Your task to perform on an android device: Go to accessibility settings Image 0: 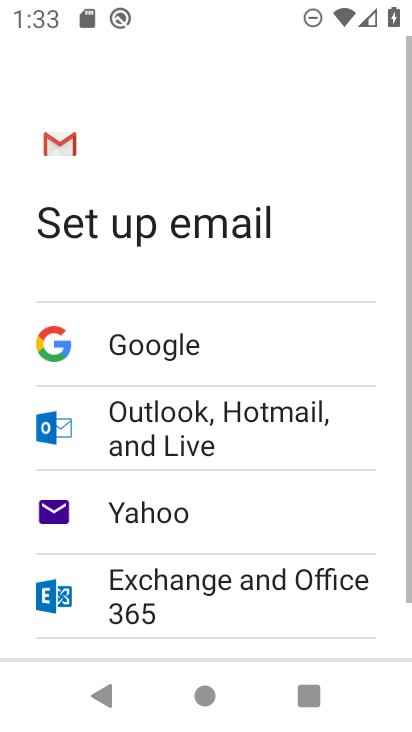
Step 0: press home button
Your task to perform on an android device: Go to accessibility settings Image 1: 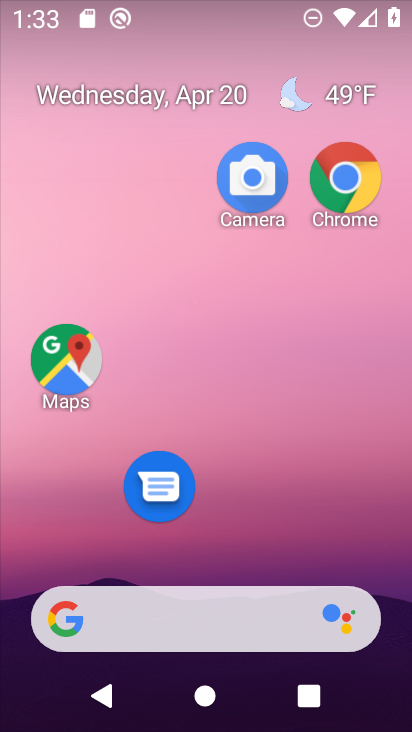
Step 1: drag from (293, 635) to (363, 21)
Your task to perform on an android device: Go to accessibility settings Image 2: 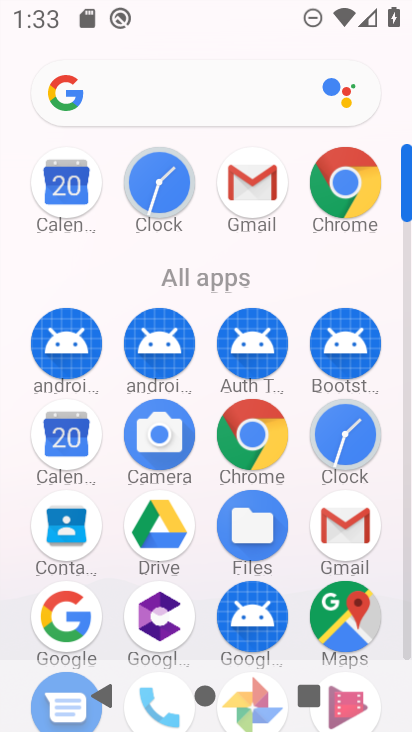
Step 2: drag from (103, 584) to (170, 215)
Your task to perform on an android device: Go to accessibility settings Image 3: 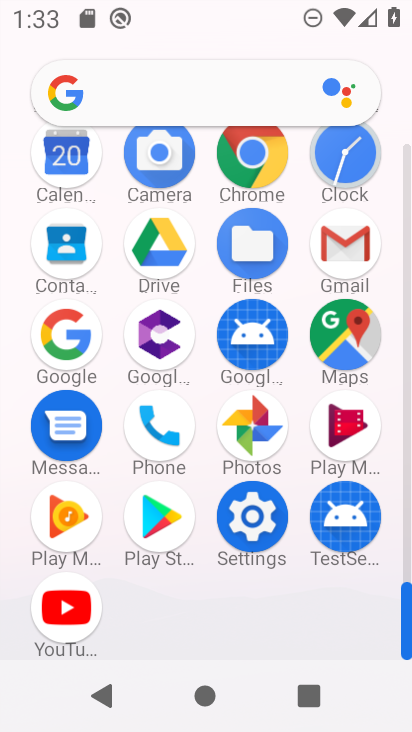
Step 3: click (239, 514)
Your task to perform on an android device: Go to accessibility settings Image 4: 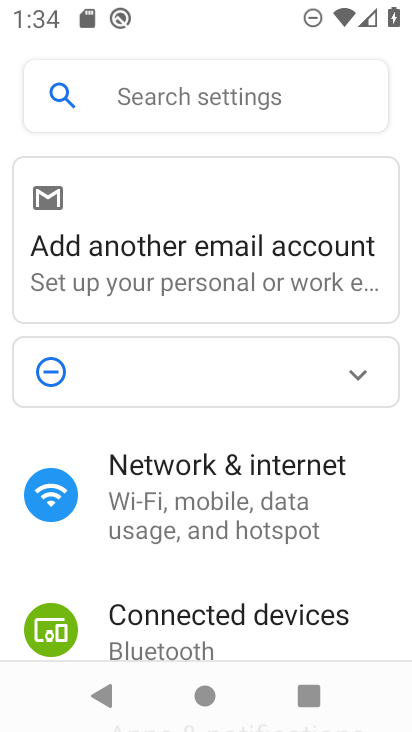
Step 4: click (146, 103)
Your task to perform on an android device: Go to accessibility settings Image 5: 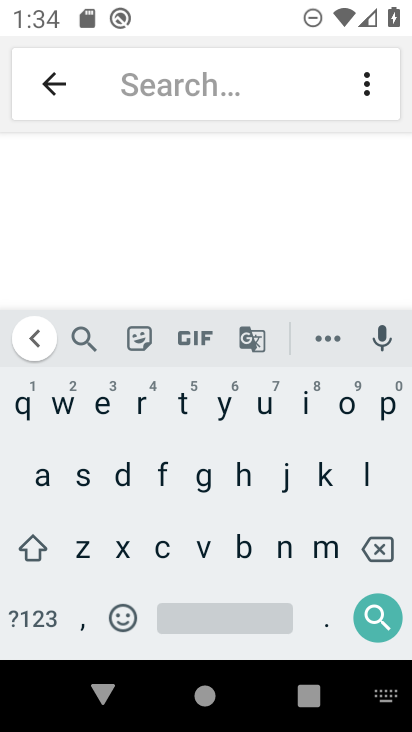
Step 5: click (38, 468)
Your task to perform on an android device: Go to accessibility settings Image 6: 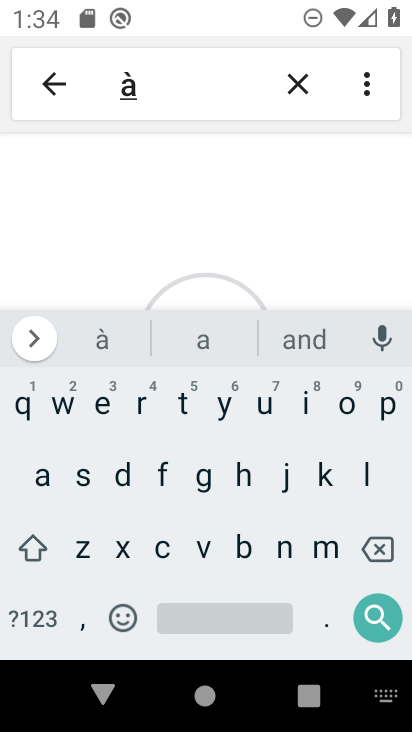
Step 6: click (375, 548)
Your task to perform on an android device: Go to accessibility settings Image 7: 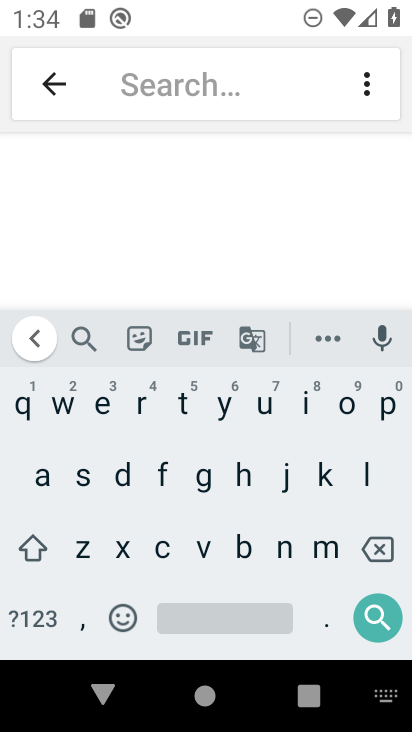
Step 7: click (38, 477)
Your task to perform on an android device: Go to accessibility settings Image 8: 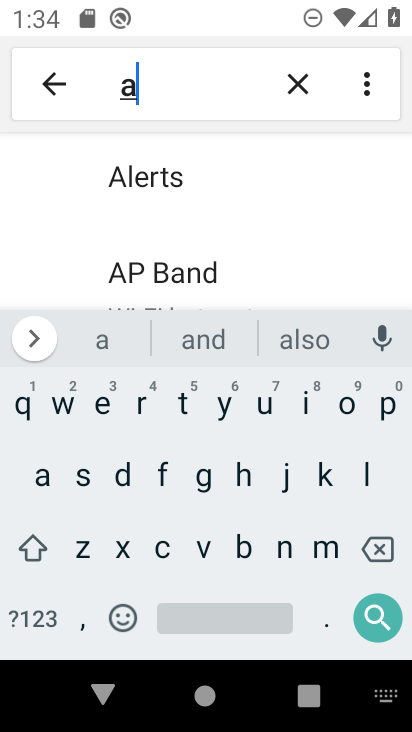
Step 8: click (156, 540)
Your task to perform on an android device: Go to accessibility settings Image 9: 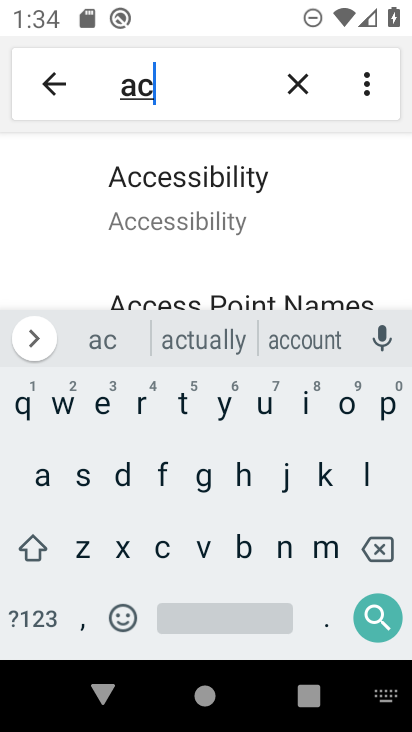
Step 9: click (220, 189)
Your task to perform on an android device: Go to accessibility settings Image 10: 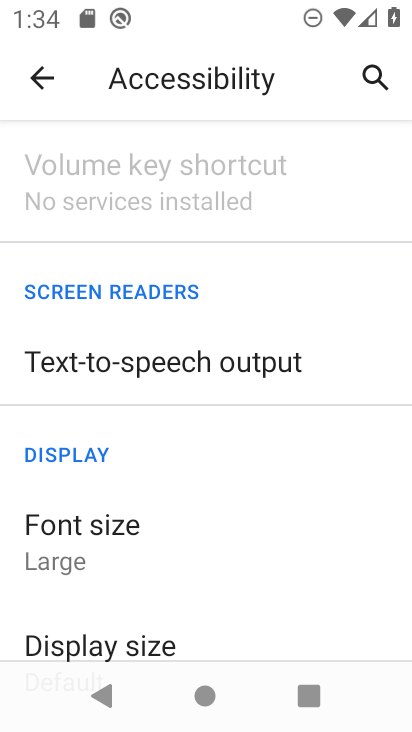
Step 10: task complete